Your task to perform on an android device: Go to Amazon Image 0: 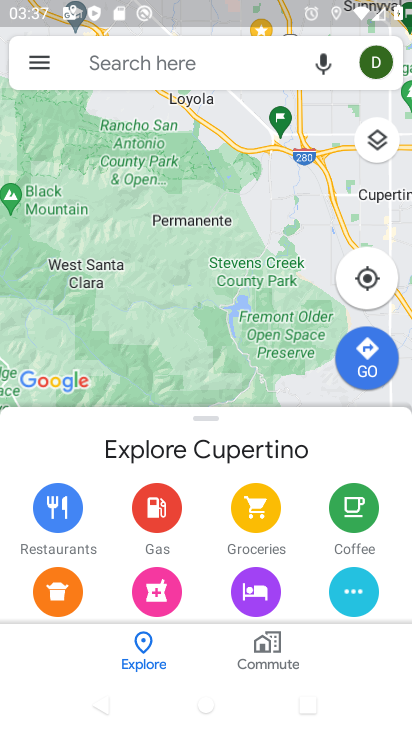
Step 0: press home button
Your task to perform on an android device: Go to Amazon Image 1: 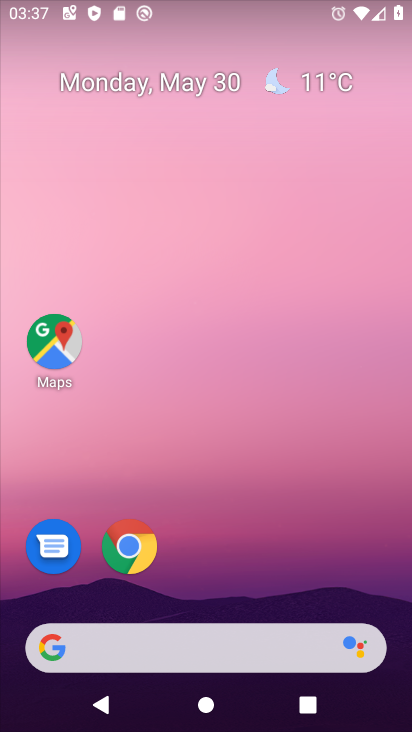
Step 1: click (130, 549)
Your task to perform on an android device: Go to Amazon Image 2: 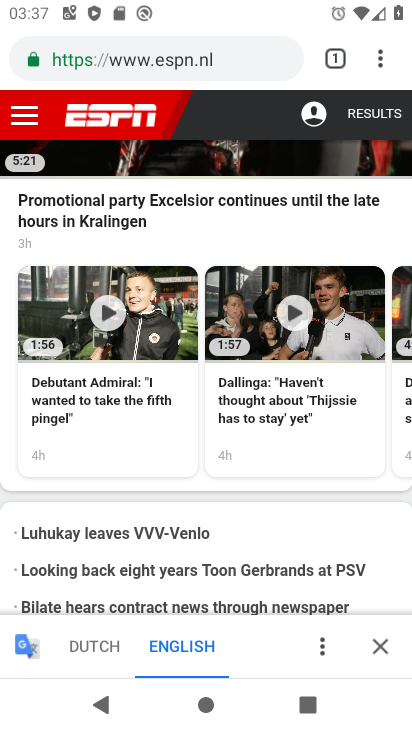
Step 2: click (338, 60)
Your task to perform on an android device: Go to Amazon Image 3: 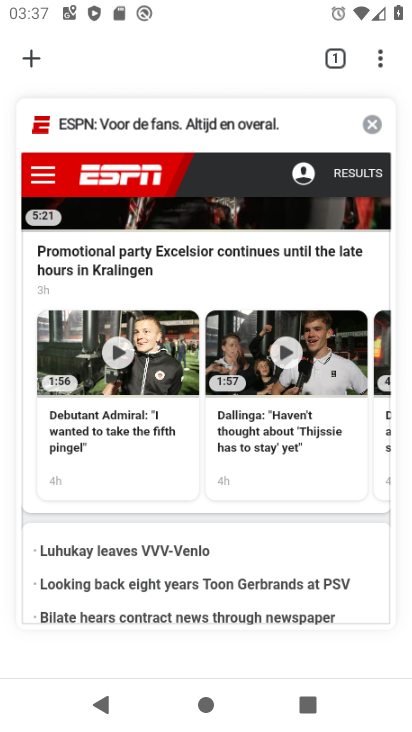
Step 3: click (376, 119)
Your task to perform on an android device: Go to Amazon Image 4: 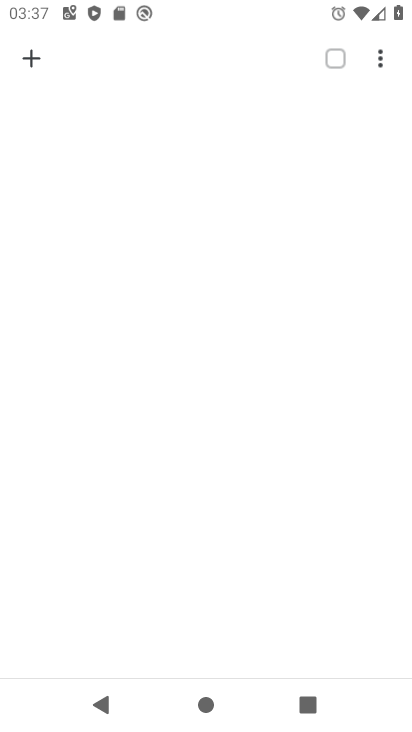
Step 4: click (34, 57)
Your task to perform on an android device: Go to Amazon Image 5: 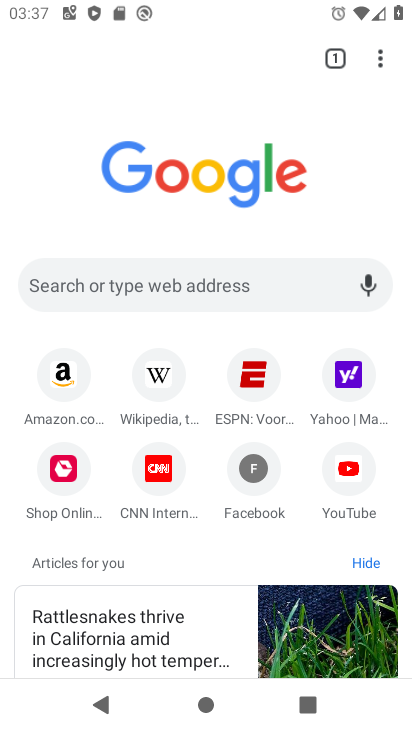
Step 5: click (62, 370)
Your task to perform on an android device: Go to Amazon Image 6: 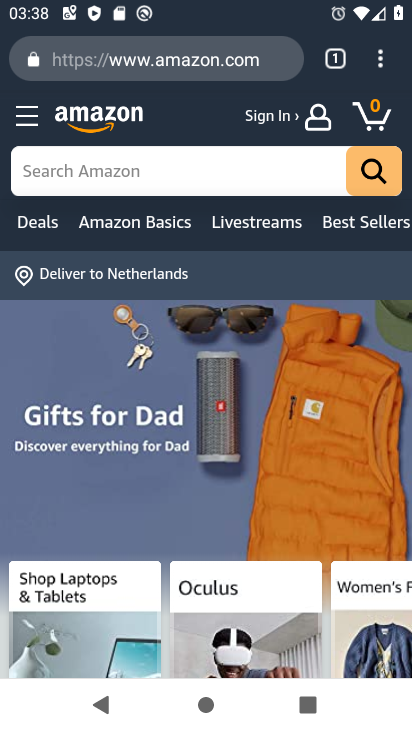
Step 6: task complete